Your task to perform on an android device: open app "Move to iOS" Image 0: 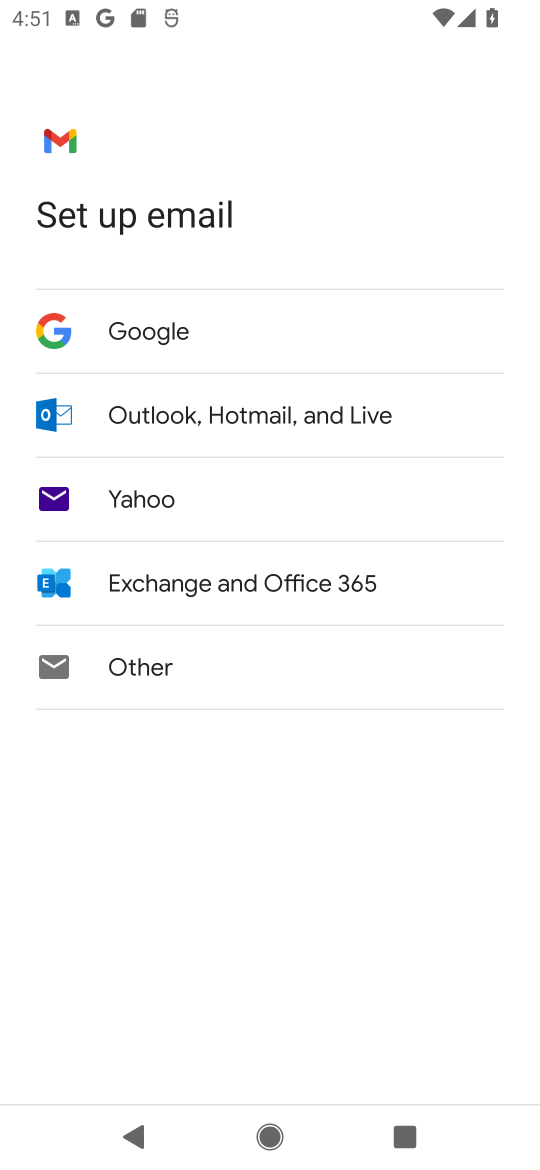
Step 0: press home button
Your task to perform on an android device: open app "Move to iOS" Image 1: 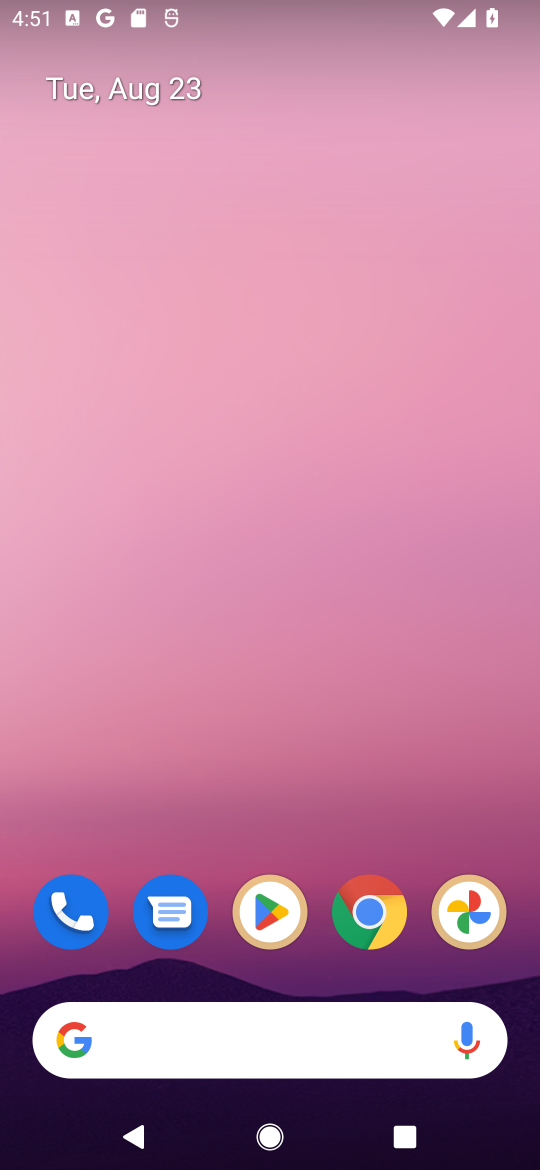
Step 1: drag from (312, 965) to (326, 225)
Your task to perform on an android device: open app "Move to iOS" Image 2: 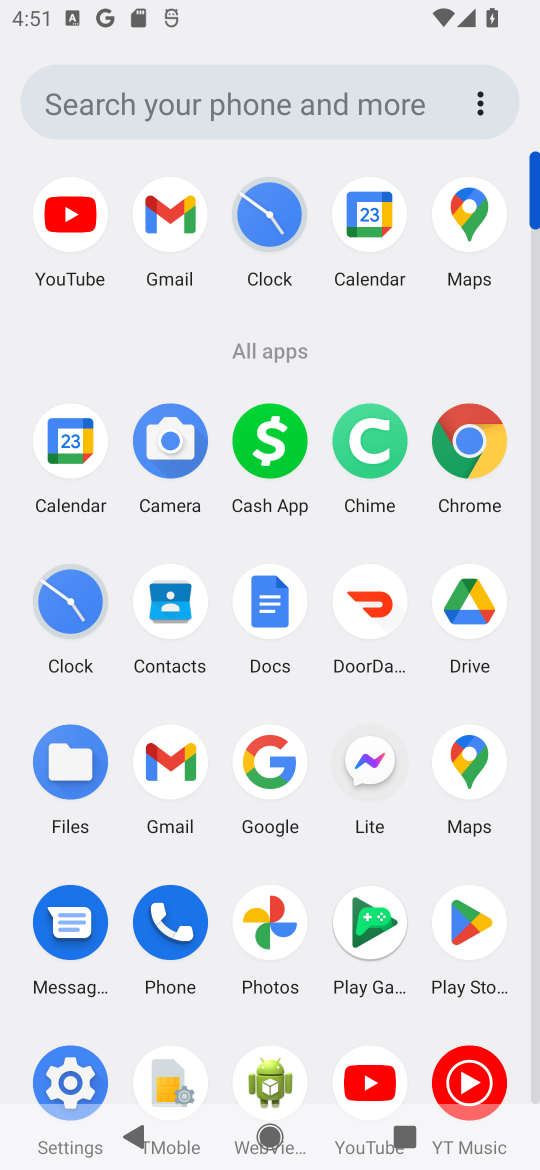
Step 2: click (440, 878)
Your task to perform on an android device: open app "Move to iOS" Image 3: 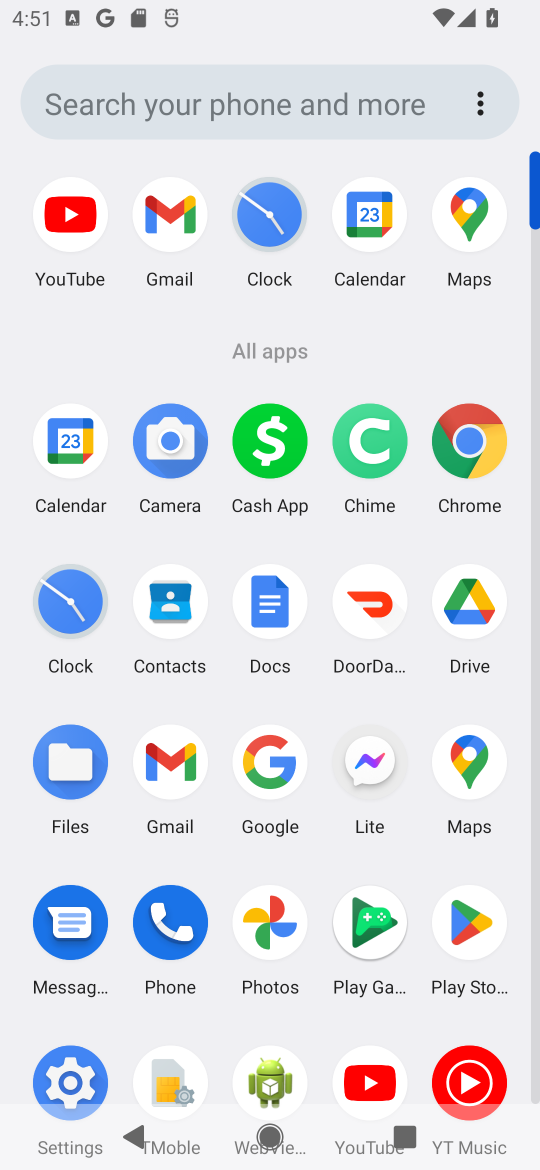
Step 3: click (455, 908)
Your task to perform on an android device: open app "Move to iOS" Image 4: 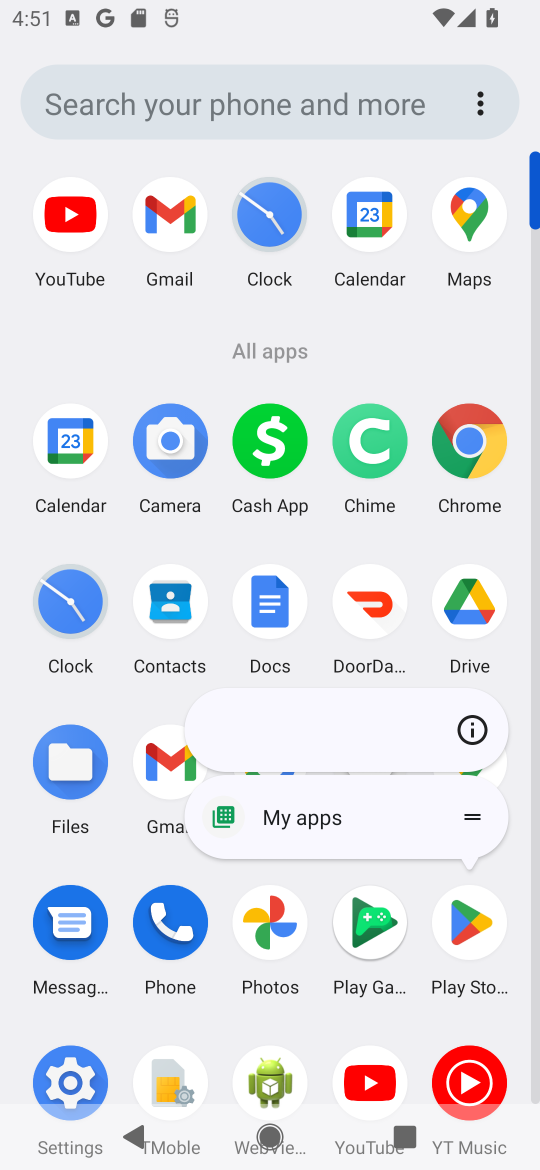
Step 4: click (461, 920)
Your task to perform on an android device: open app "Move to iOS" Image 5: 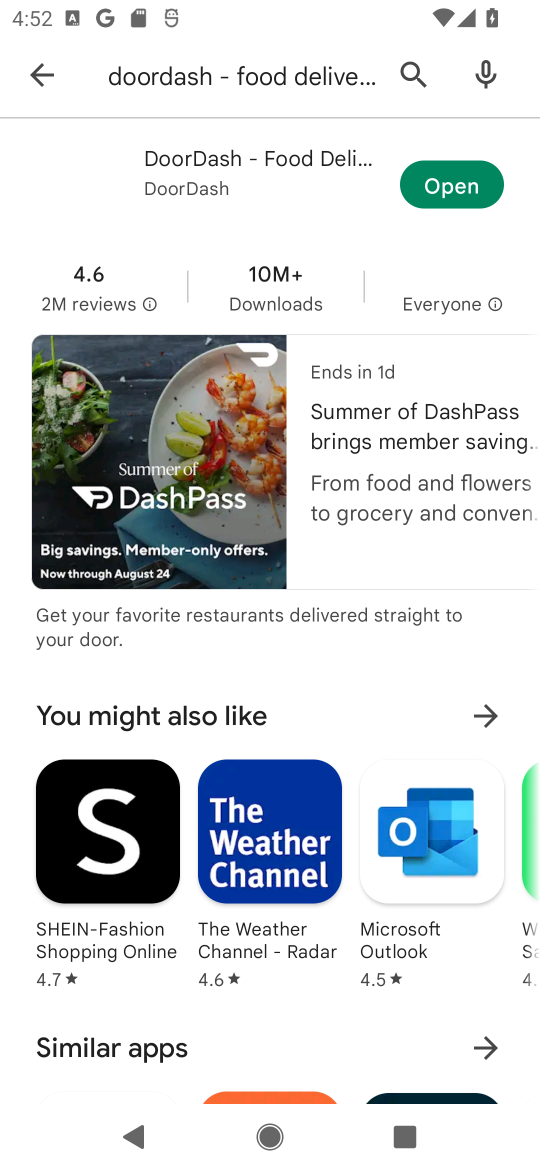
Step 5: click (37, 70)
Your task to perform on an android device: open app "Move to iOS" Image 6: 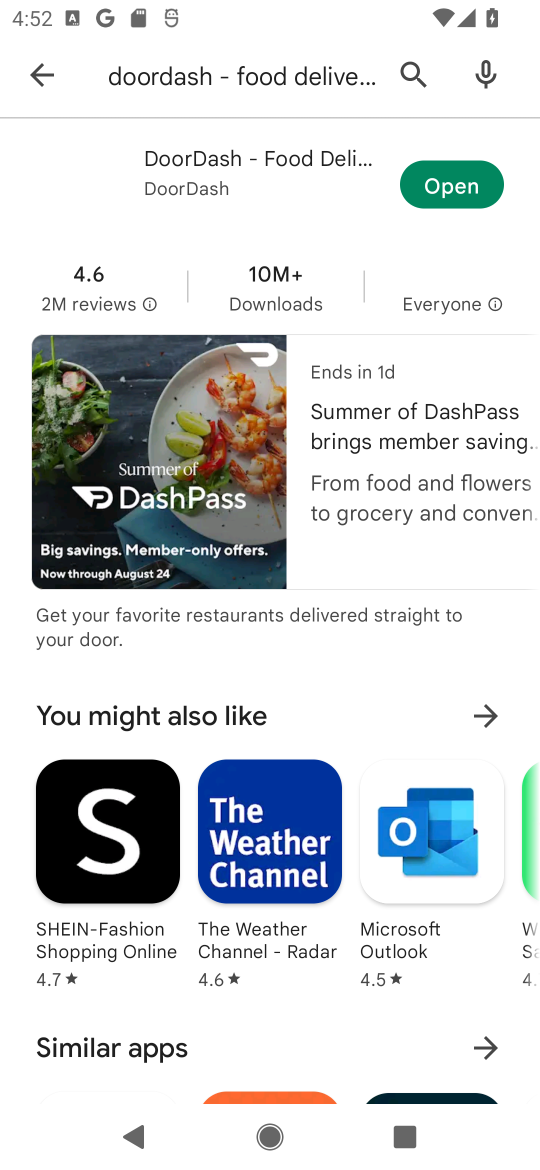
Step 6: click (65, 52)
Your task to perform on an android device: open app "Move to iOS" Image 7: 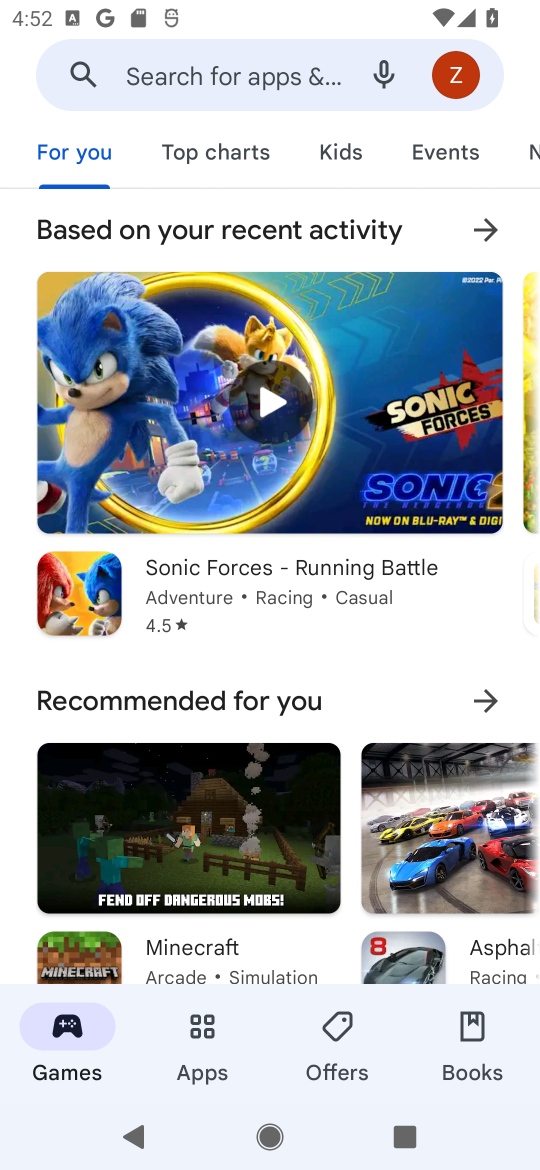
Step 7: click (244, 53)
Your task to perform on an android device: open app "Move to iOS" Image 8: 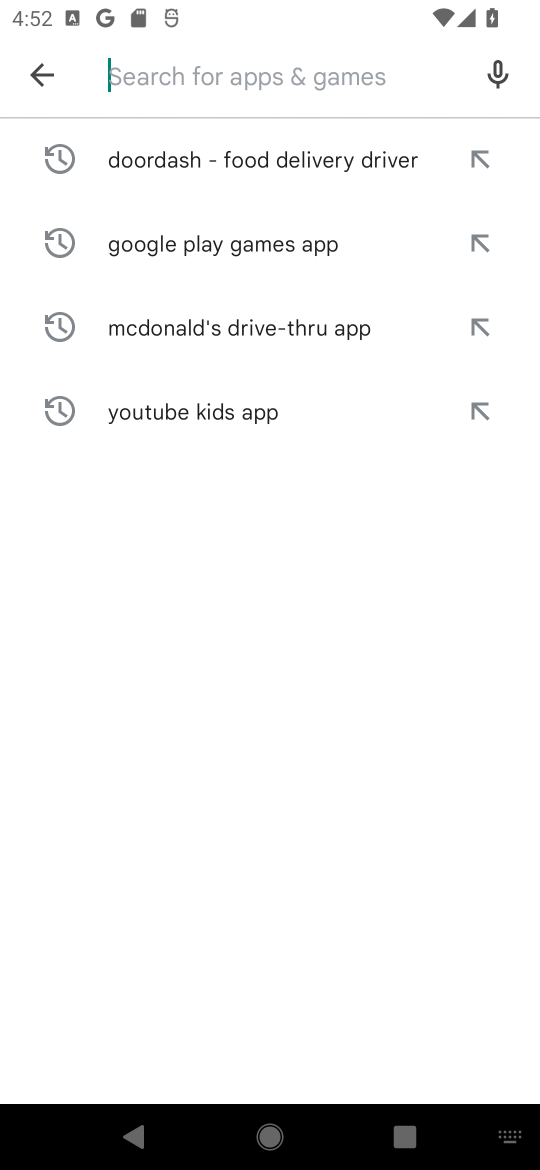
Step 8: type "Move to iOS "
Your task to perform on an android device: open app "Move to iOS" Image 9: 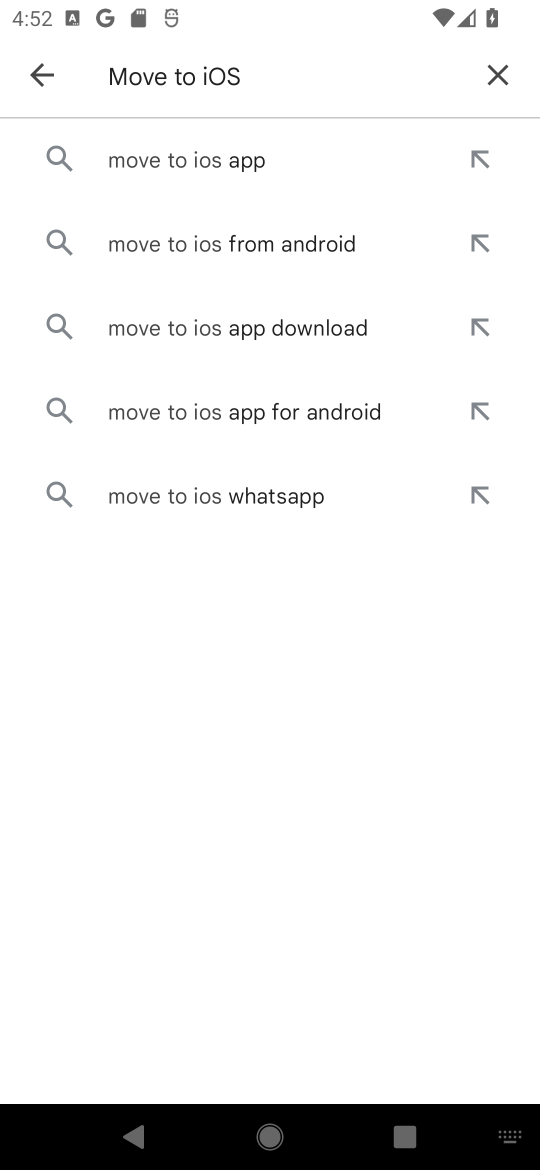
Step 9: click (243, 154)
Your task to perform on an android device: open app "Move to iOS" Image 10: 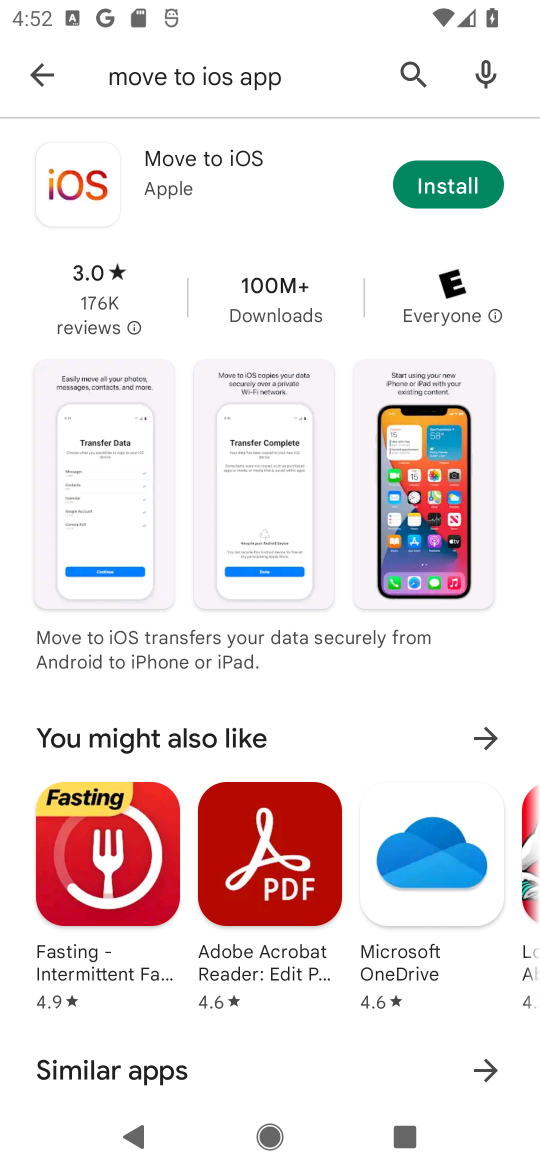
Step 10: click (435, 181)
Your task to perform on an android device: open app "Move to iOS" Image 11: 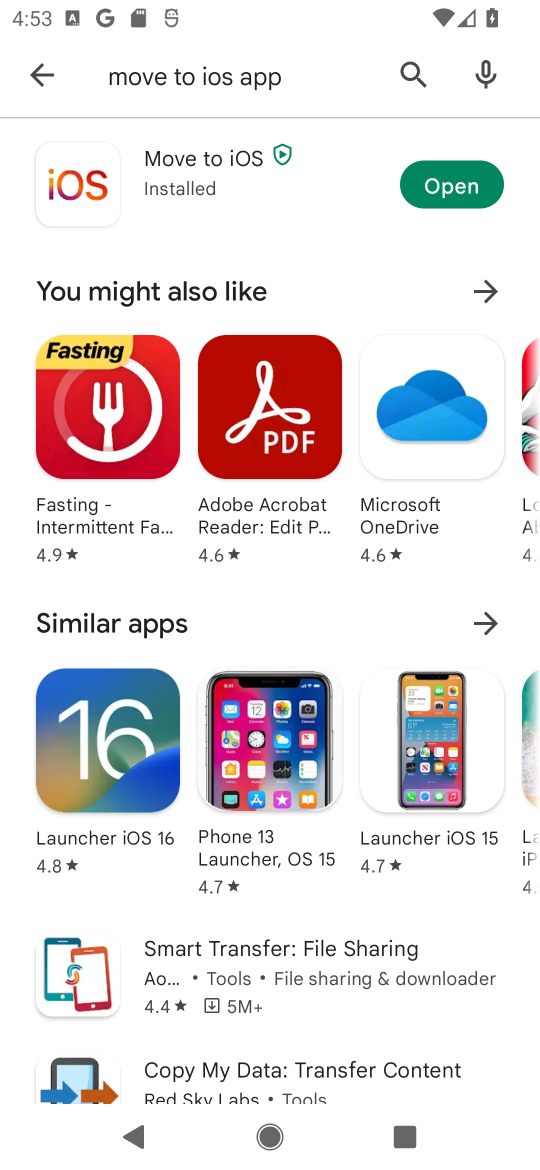
Step 11: click (428, 181)
Your task to perform on an android device: open app "Move to iOS" Image 12: 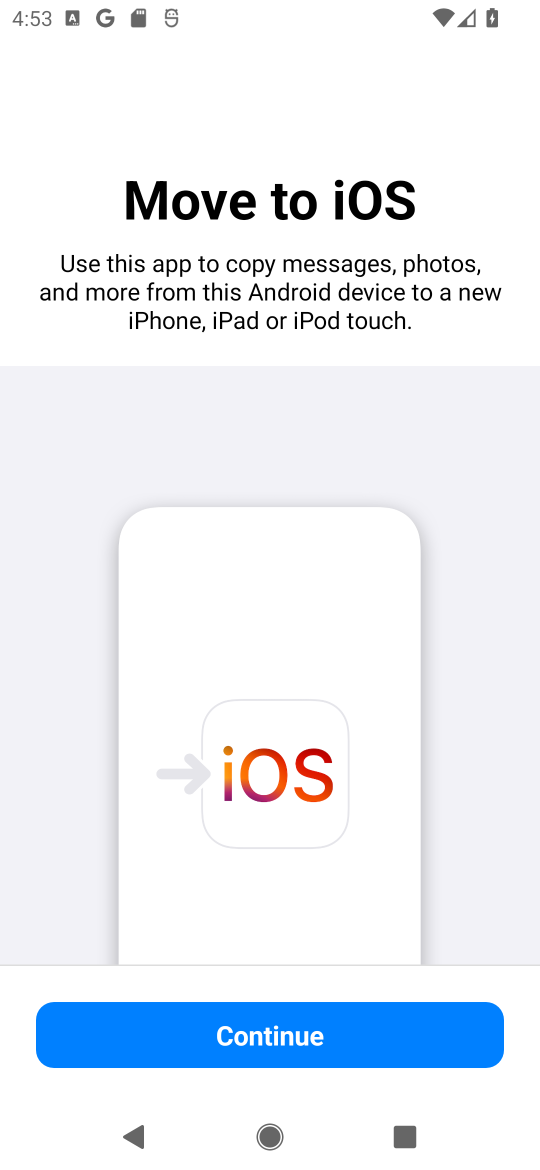
Step 12: task complete